Your task to perform on an android device: Search for vegetarian restaurants on Maps Image 0: 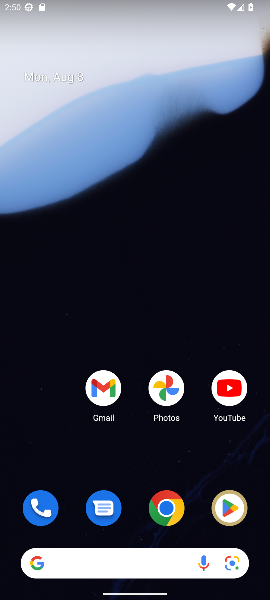
Step 0: drag from (69, 441) to (70, 32)
Your task to perform on an android device: Search for vegetarian restaurants on Maps Image 1: 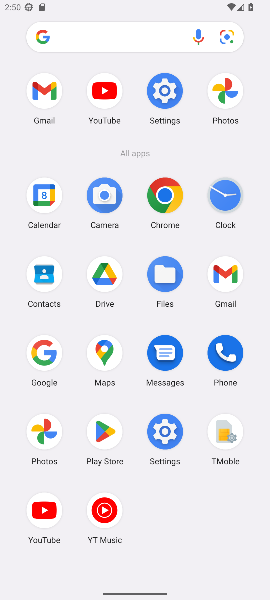
Step 1: click (103, 350)
Your task to perform on an android device: Search for vegetarian restaurants on Maps Image 2: 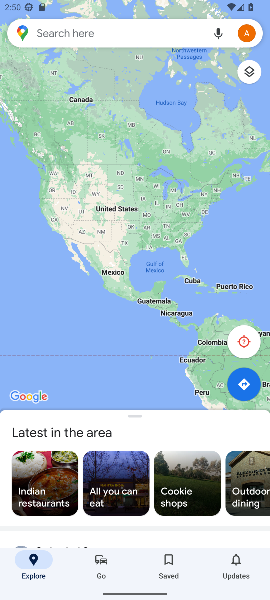
Step 2: click (100, 30)
Your task to perform on an android device: Search for vegetarian restaurants on Maps Image 3: 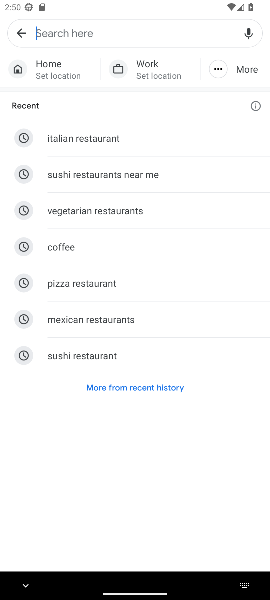
Step 3: click (98, 210)
Your task to perform on an android device: Search for vegetarian restaurants on Maps Image 4: 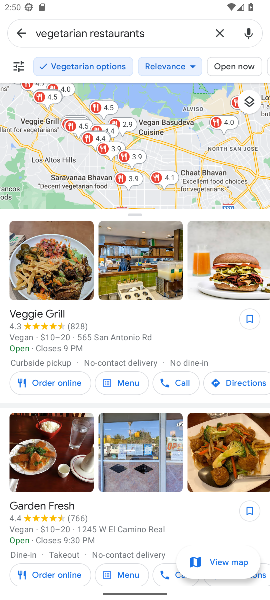
Step 4: task complete